Your task to perform on an android device: Open wifi settings Image 0: 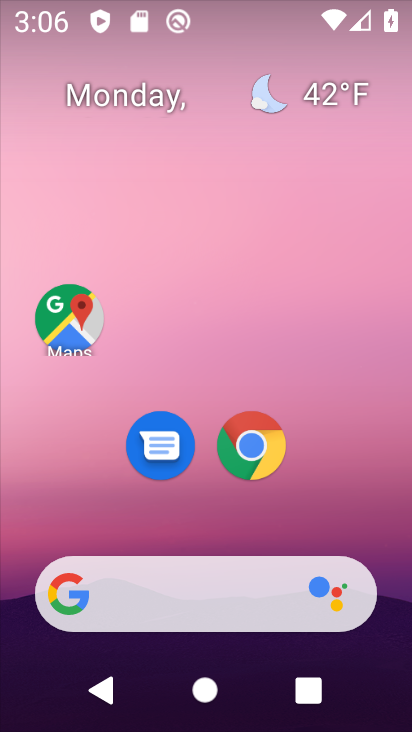
Step 0: drag from (9, 541) to (225, 33)
Your task to perform on an android device: Open wifi settings Image 1: 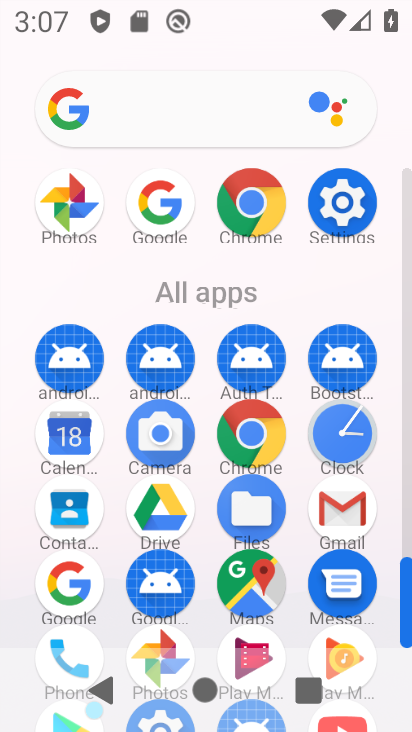
Step 1: click (329, 194)
Your task to perform on an android device: Open wifi settings Image 2: 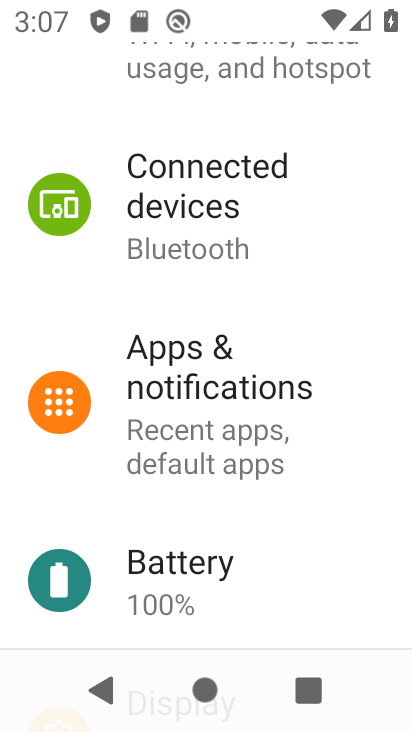
Step 2: drag from (217, 127) to (229, 467)
Your task to perform on an android device: Open wifi settings Image 3: 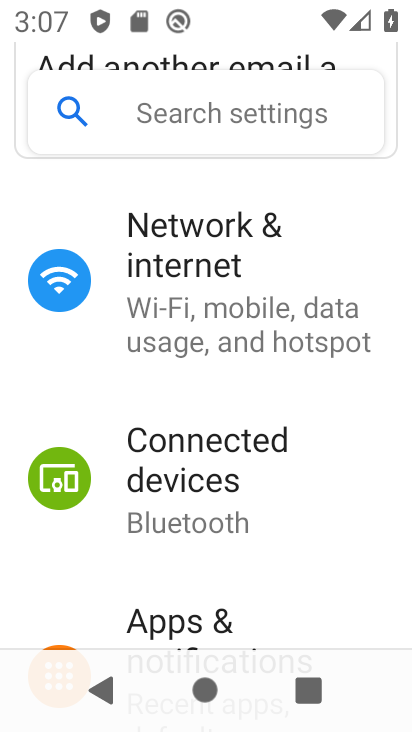
Step 3: click (169, 268)
Your task to perform on an android device: Open wifi settings Image 4: 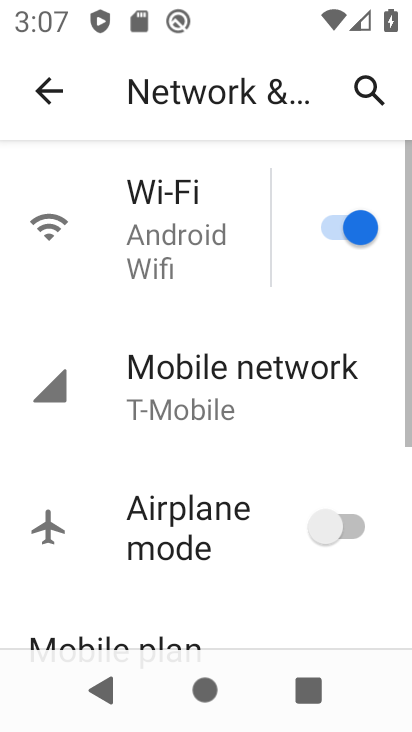
Step 4: click (162, 244)
Your task to perform on an android device: Open wifi settings Image 5: 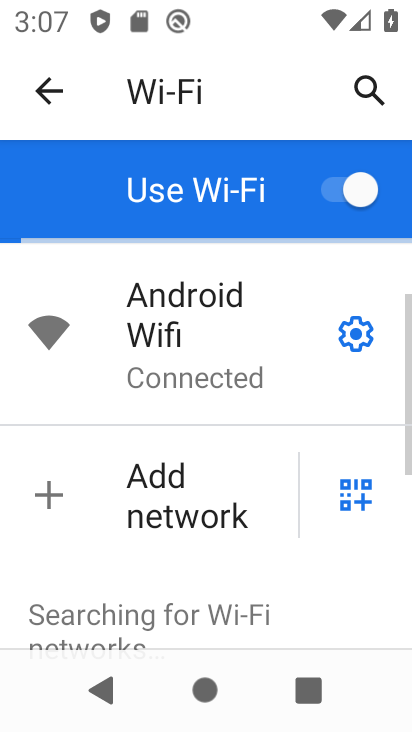
Step 5: task complete